Your task to perform on an android device: Open display settings Image 0: 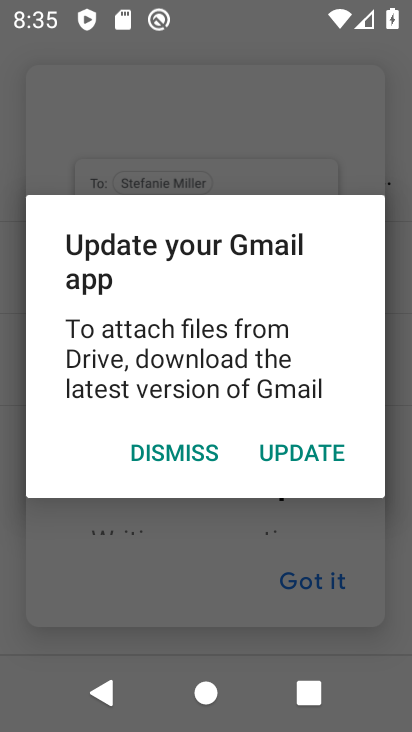
Step 0: click (171, 460)
Your task to perform on an android device: Open display settings Image 1: 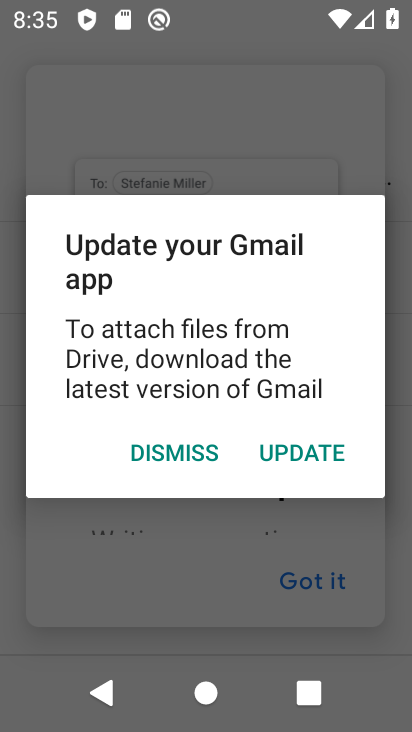
Step 1: click (171, 460)
Your task to perform on an android device: Open display settings Image 2: 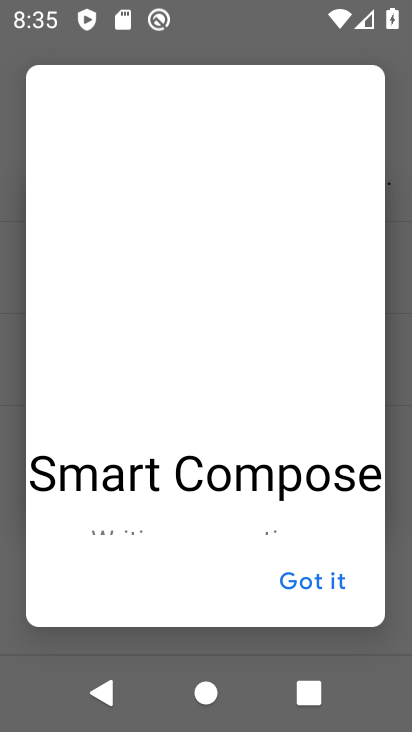
Step 2: click (312, 573)
Your task to perform on an android device: Open display settings Image 3: 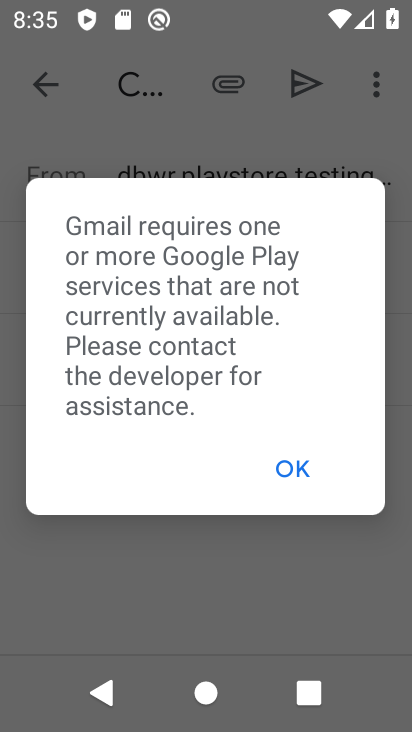
Step 3: click (295, 449)
Your task to perform on an android device: Open display settings Image 4: 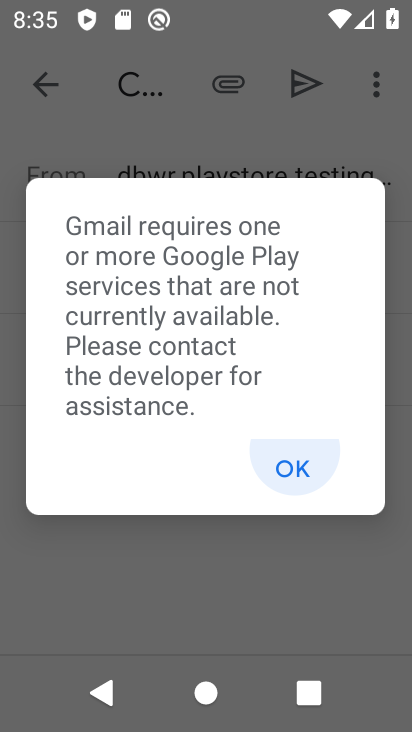
Step 4: click (296, 463)
Your task to perform on an android device: Open display settings Image 5: 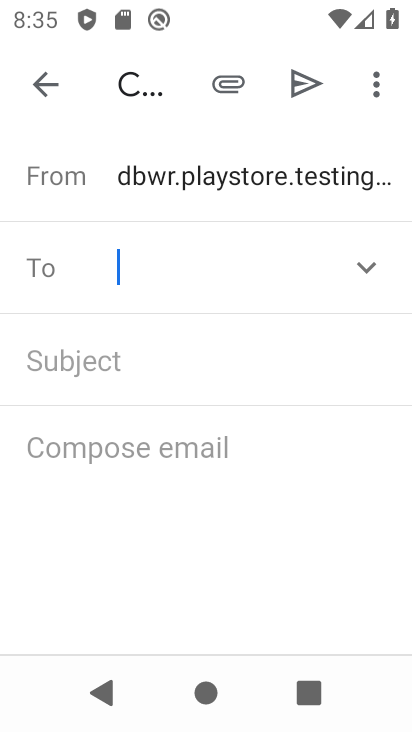
Step 5: click (296, 463)
Your task to perform on an android device: Open display settings Image 6: 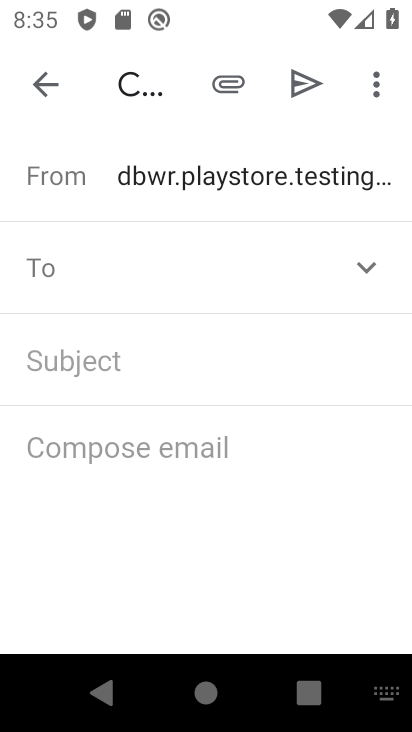
Step 6: click (296, 463)
Your task to perform on an android device: Open display settings Image 7: 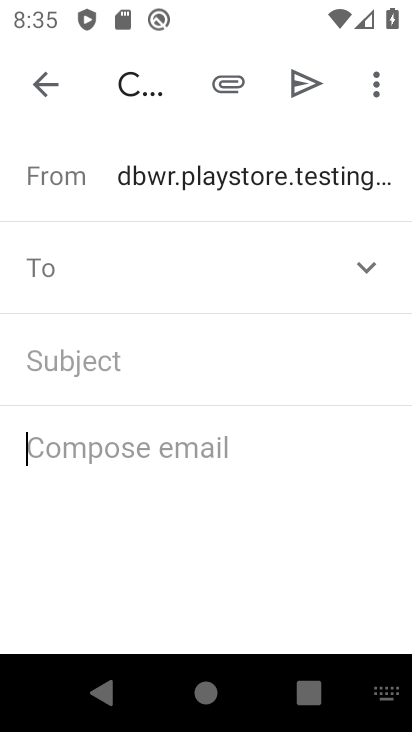
Step 7: press back button
Your task to perform on an android device: Open display settings Image 8: 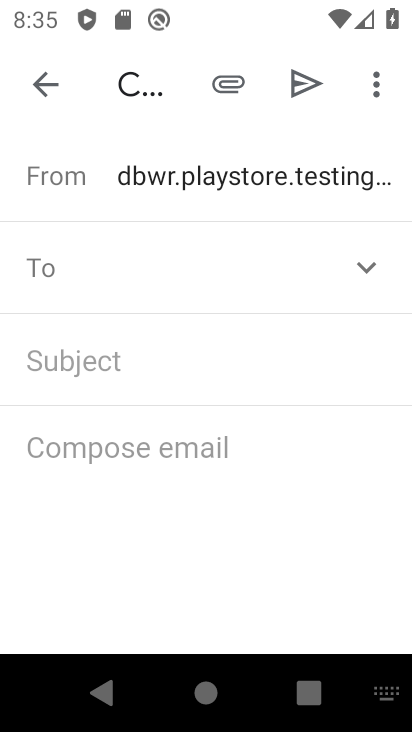
Step 8: press back button
Your task to perform on an android device: Open display settings Image 9: 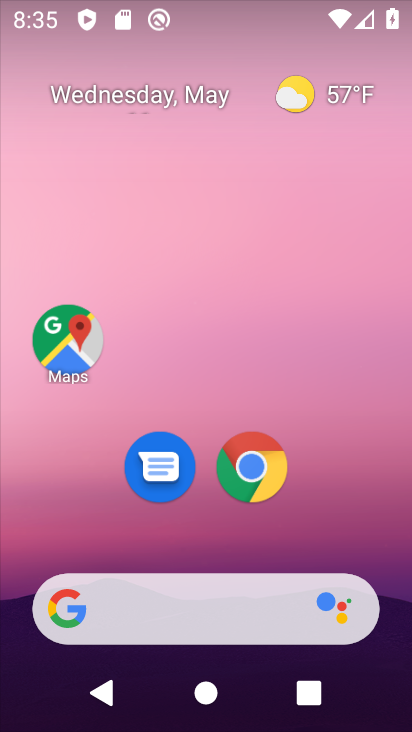
Step 9: drag from (378, 570) to (121, 65)
Your task to perform on an android device: Open display settings Image 10: 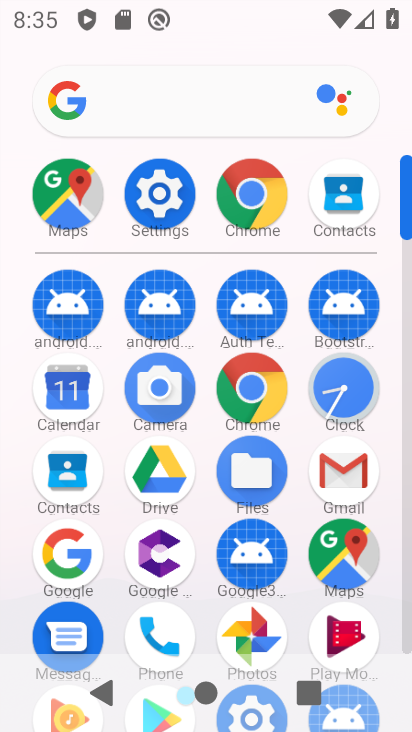
Step 10: click (153, 190)
Your task to perform on an android device: Open display settings Image 11: 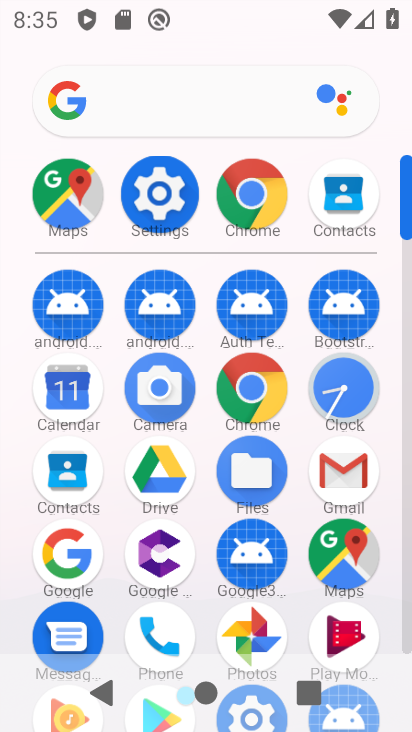
Step 11: click (156, 188)
Your task to perform on an android device: Open display settings Image 12: 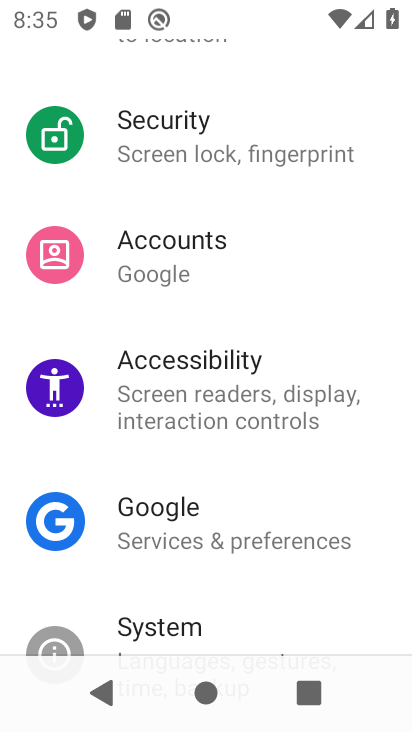
Step 12: drag from (188, 514) to (126, 140)
Your task to perform on an android device: Open display settings Image 13: 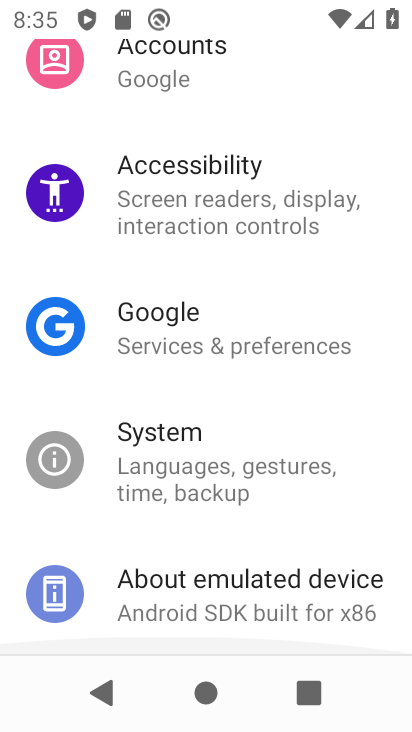
Step 13: drag from (236, 457) to (185, 213)
Your task to perform on an android device: Open display settings Image 14: 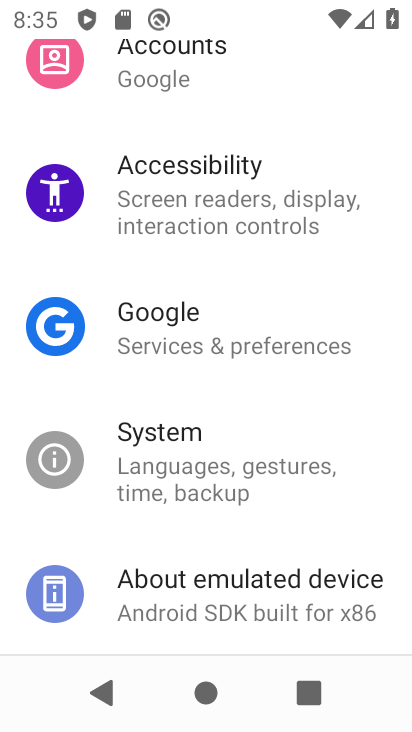
Step 14: drag from (225, 237) to (244, 553)
Your task to perform on an android device: Open display settings Image 15: 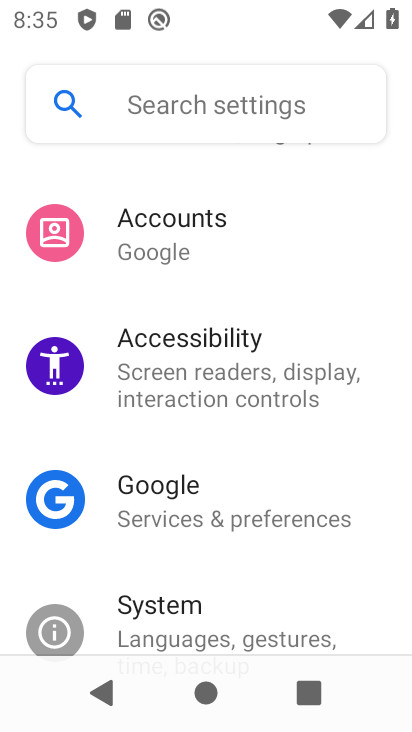
Step 15: drag from (205, 242) to (289, 608)
Your task to perform on an android device: Open display settings Image 16: 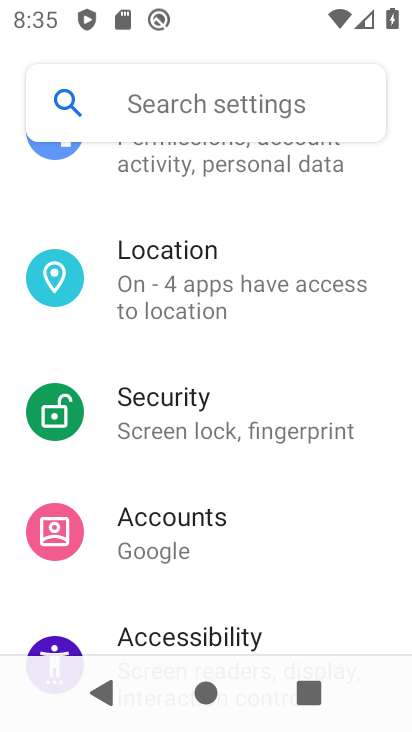
Step 16: drag from (208, 304) to (288, 514)
Your task to perform on an android device: Open display settings Image 17: 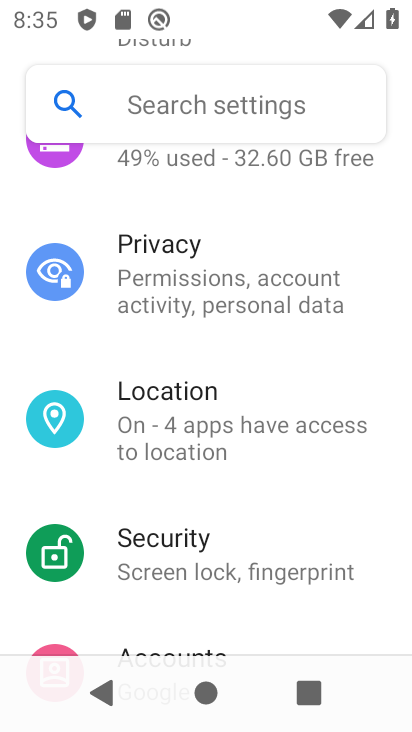
Step 17: drag from (235, 310) to (304, 565)
Your task to perform on an android device: Open display settings Image 18: 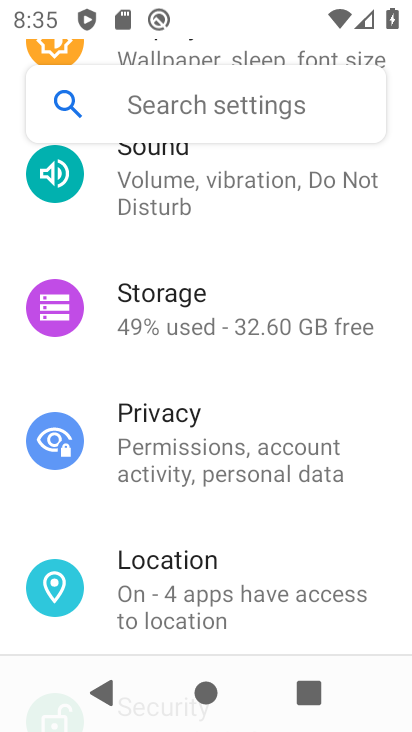
Step 18: drag from (247, 349) to (298, 564)
Your task to perform on an android device: Open display settings Image 19: 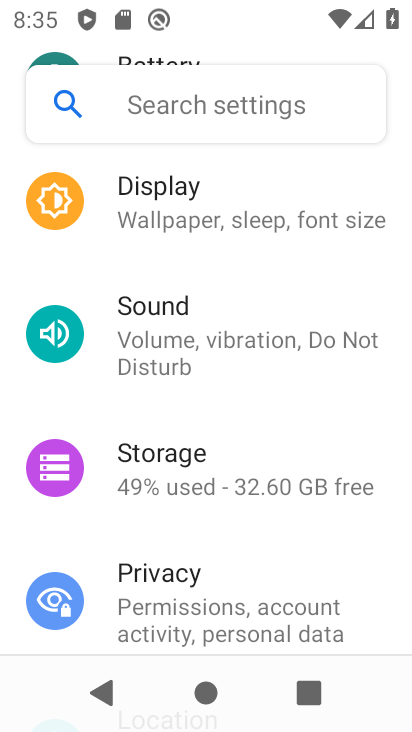
Step 19: drag from (213, 254) to (251, 410)
Your task to perform on an android device: Open display settings Image 20: 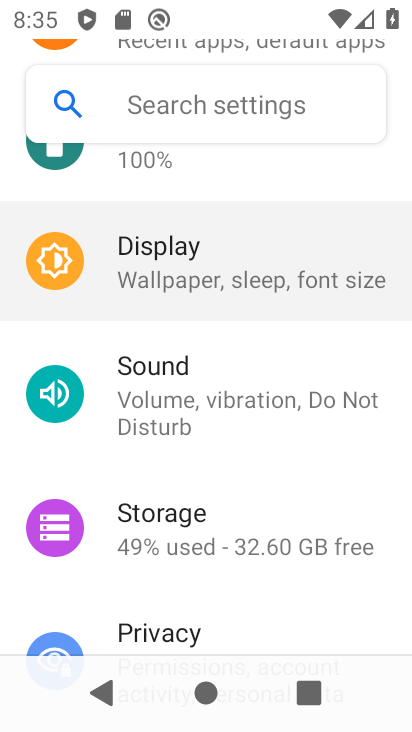
Step 20: drag from (218, 310) to (271, 483)
Your task to perform on an android device: Open display settings Image 21: 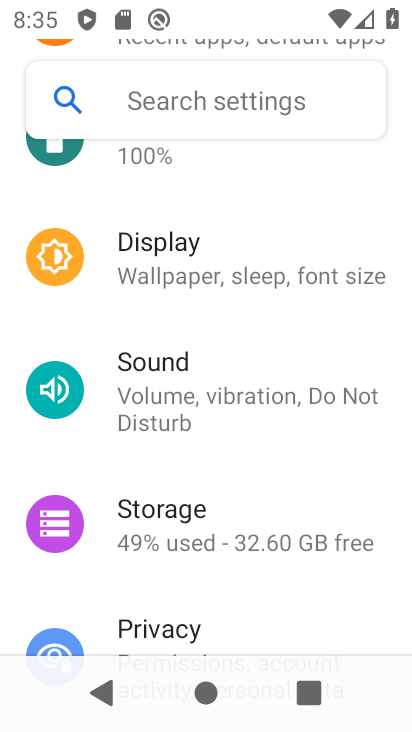
Step 21: click (143, 274)
Your task to perform on an android device: Open display settings Image 22: 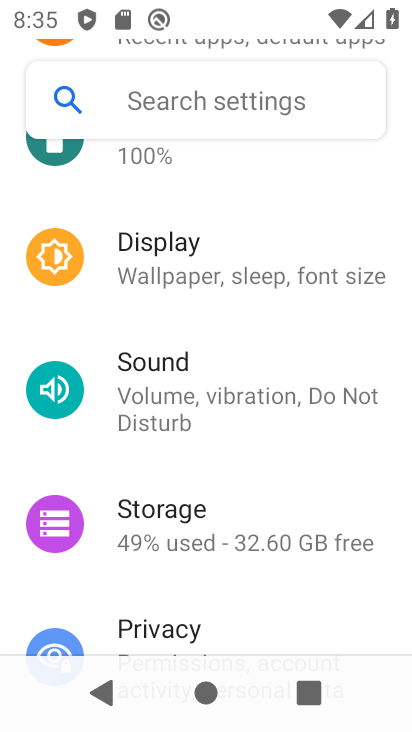
Step 22: click (143, 274)
Your task to perform on an android device: Open display settings Image 23: 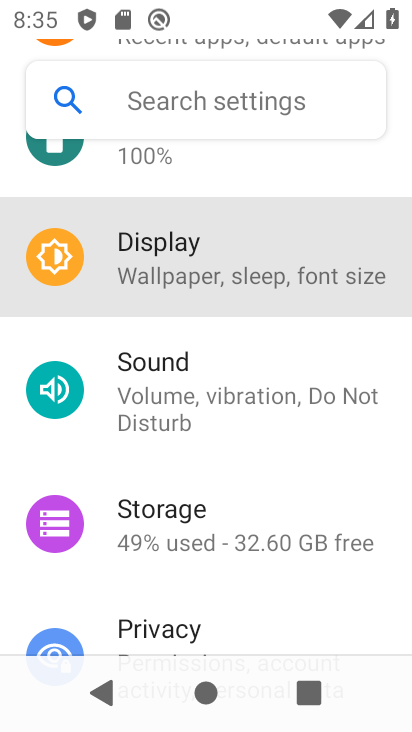
Step 23: click (143, 274)
Your task to perform on an android device: Open display settings Image 24: 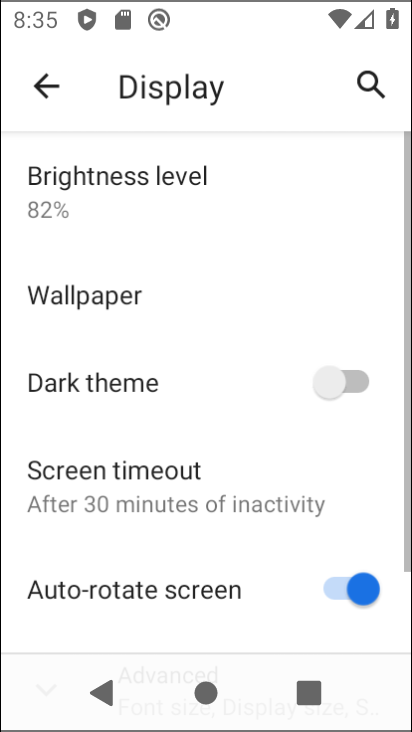
Step 24: click (145, 271)
Your task to perform on an android device: Open display settings Image 25: 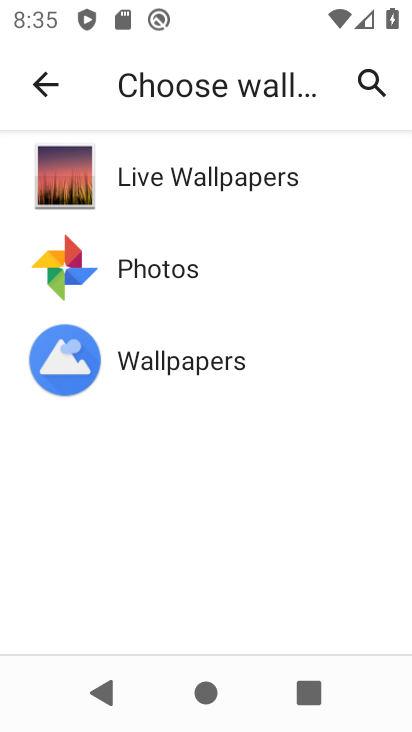
Step 25: click (45, 96)
Your task to perform on an android device: Open display settings Image 26: 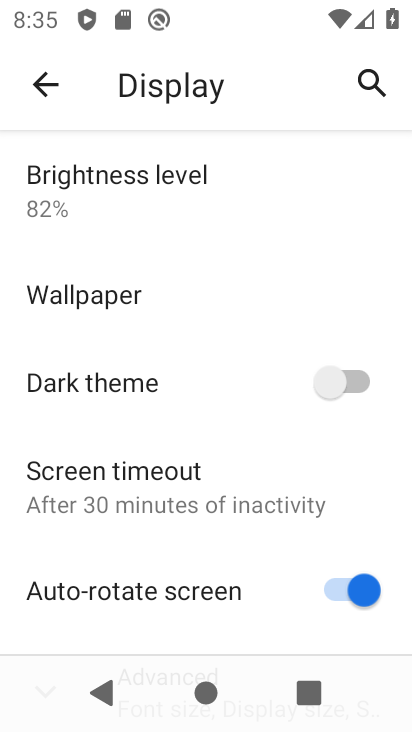
Step 26: task complete